Your task to perform on an android device: Go to Google maps Image 0: 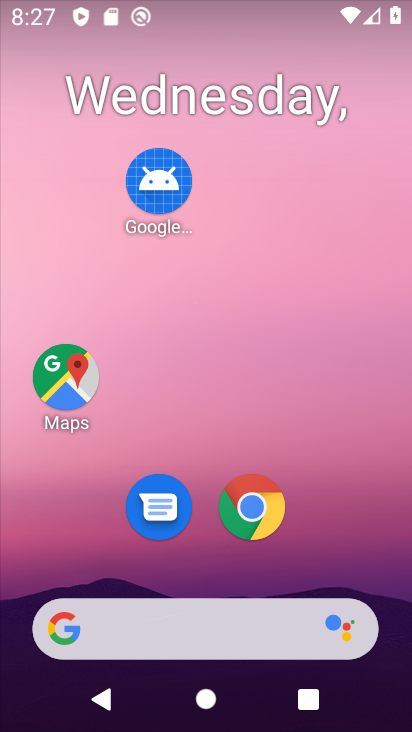
Step 0: drag from (221, 545) to (249, 1)
Your task to perform on an android device: Go to Google maps Image 1: 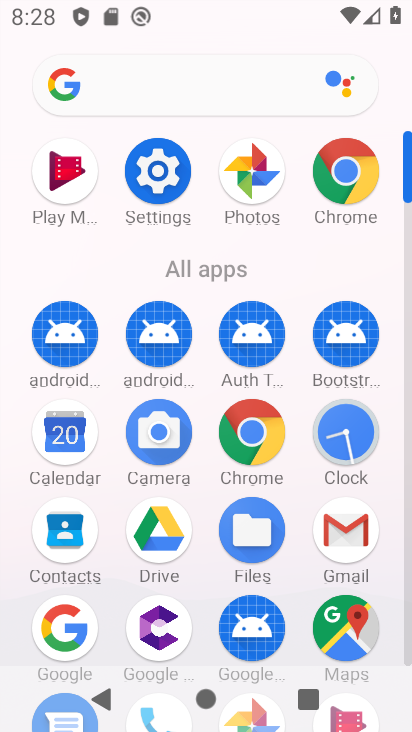
Step 1: click (342, 635)
Your task to perform on an android device: Go to Google maps Image 2: 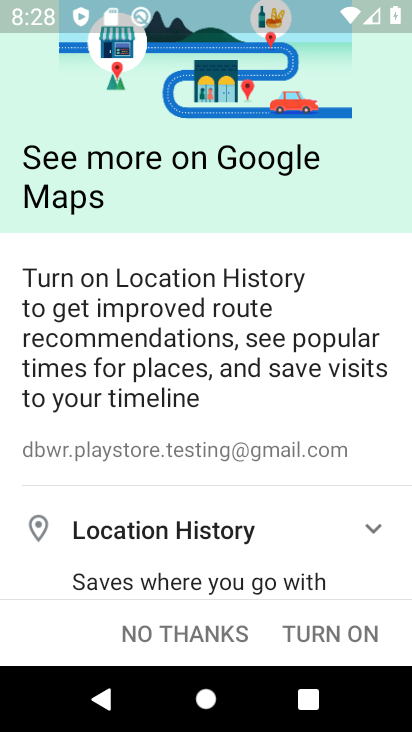
Step 2: click (317, 631)
Your task to perform on an android device: Go to Google maps Image 3: 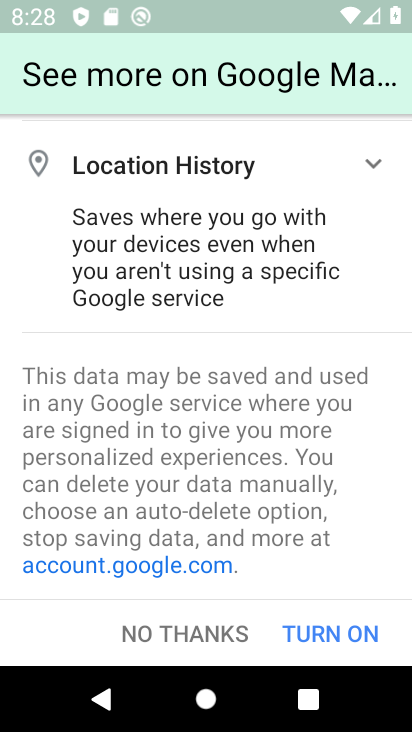
Step 3: click (326, 615)
Your task to perform on an android device: Go to Google maps Image 4: 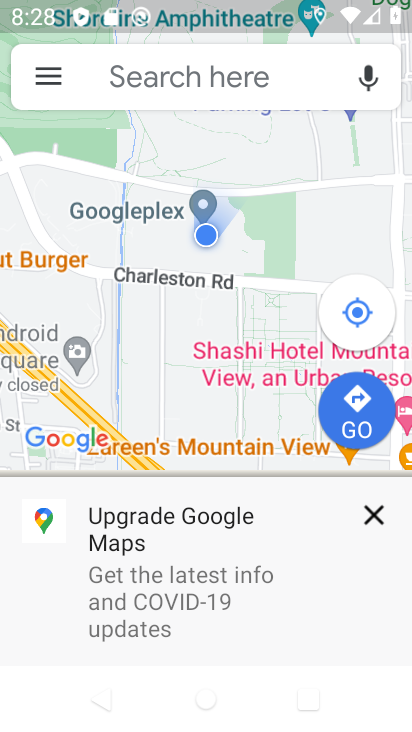
Step 4: task complete